Your task to perform on an android device: Open the Play Movies app and select the watchlist tab. Image 0: 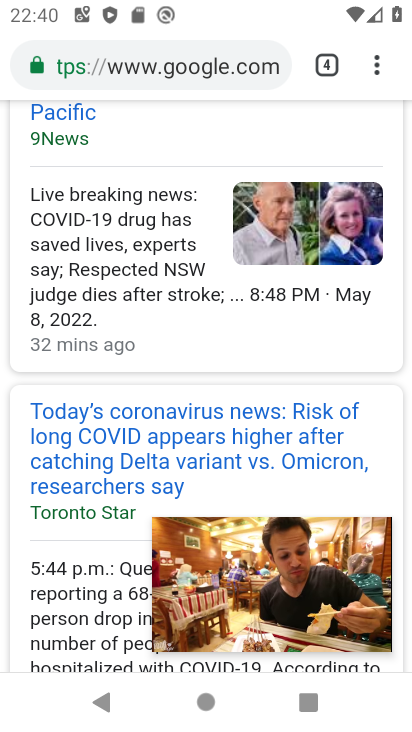
Step 0: click (317, 65)
Your task to perform on an android device: Open the Play Movies app and select the watchlist tab. Image 1: 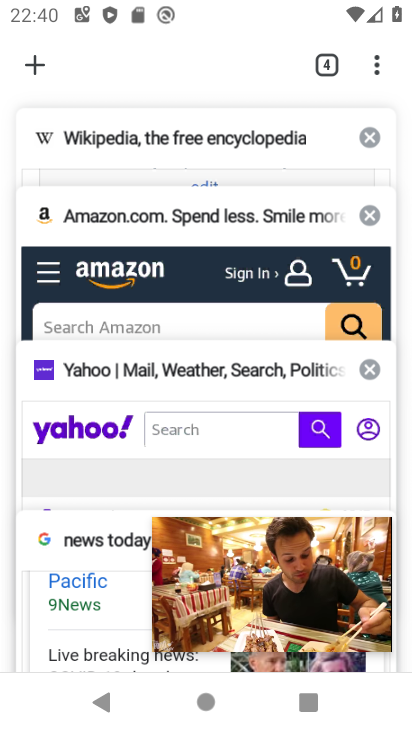
Step 1: click (132, 374)
Your task to perform on an android device: Open the Play Movies app and select the watchlist tab. Image 2: 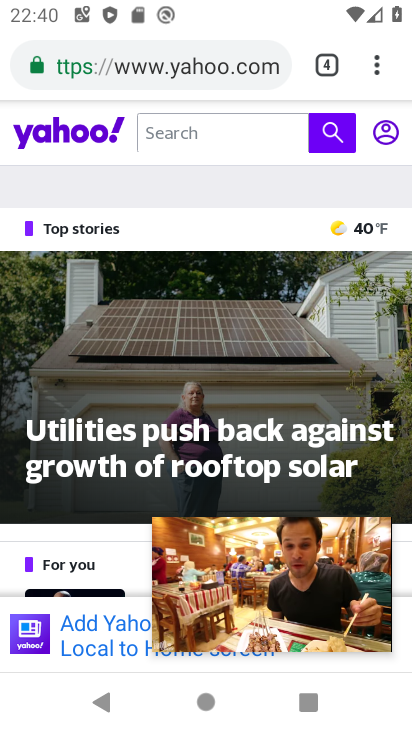
Step 2: press home button
Your task to perform on an android device: Open the Play Movies app and select the watchlist tab. Image 3: 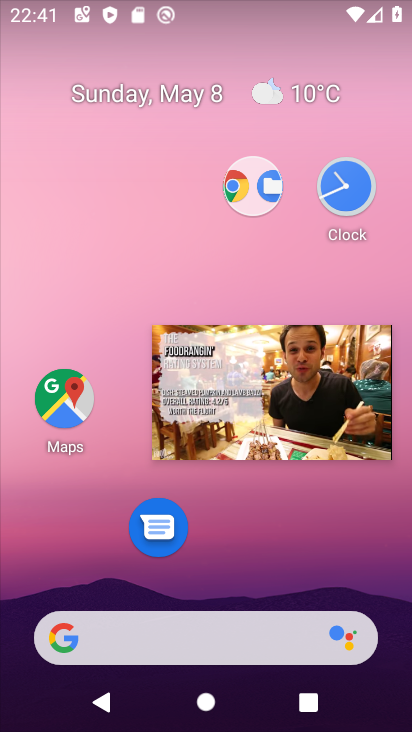
Step 3: click (369, 346)
Your task to perform on an android device: Open the Play Movies app and select the watchlist tab. Image 4: 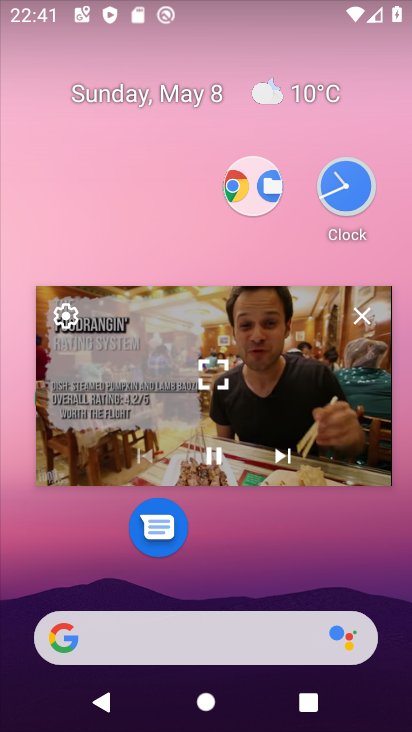
Step 4: click (369, 315)
Your task to perform on an android device: Open the Play Movies app and select the watchlist tab. Image 5: 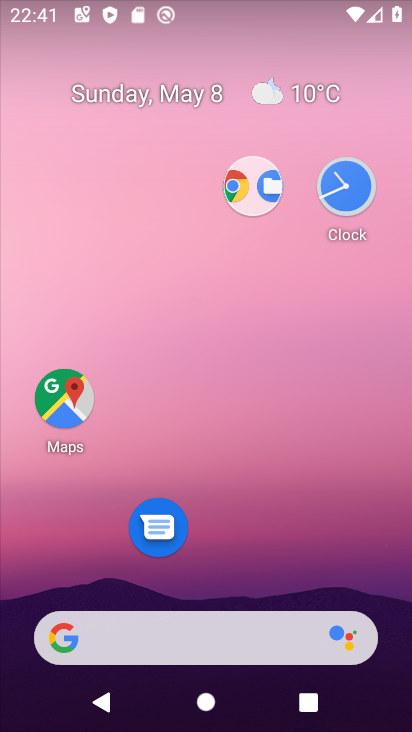
Step 5: drag from (290, 564) to (282, 148)
Your task to perform on an android device: Open the Play Movies app and select the watchlist tab. Image 6: 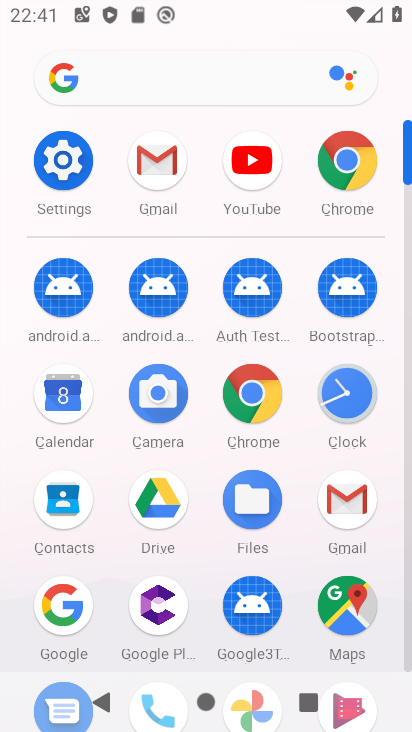
Step 6: drag from (297, 623) to (296, 310)
Your task to perform on an android device: Open the Play Movies app and select the watchlist tab. Image 7: 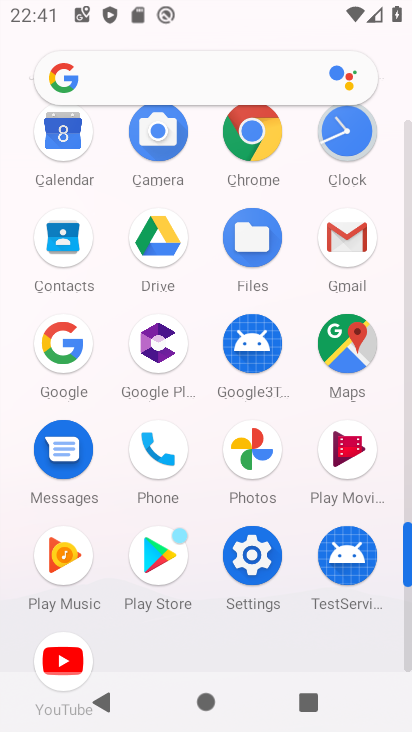
Step 7: click (353, 448)
Your task to perform on an android device: Open the Play Movies app and select the watchlist tab. Image 8: 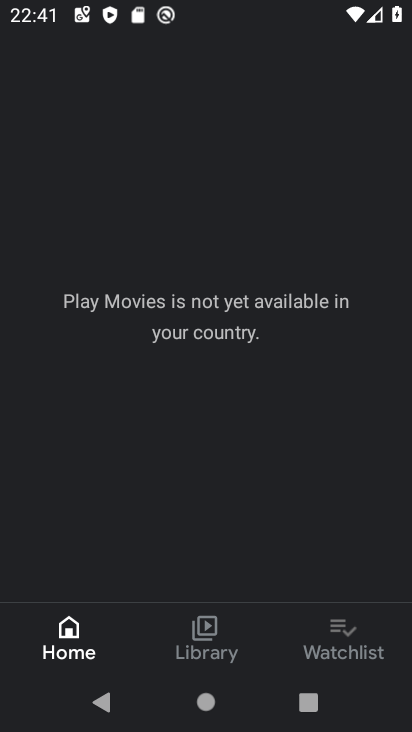
Step 8: click (343, 636)
Your task to perform on an android device: Open the Play Movies app and select the watchlist tab. Image 9: 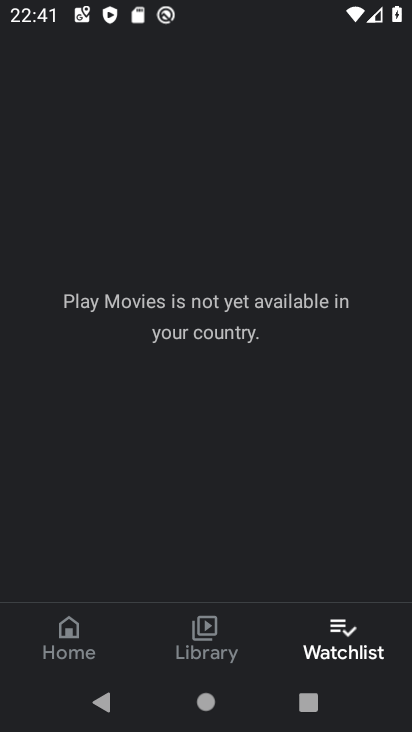
Step 9: task complete